Your task to perform on an android device: Go to Android settings Image 0: 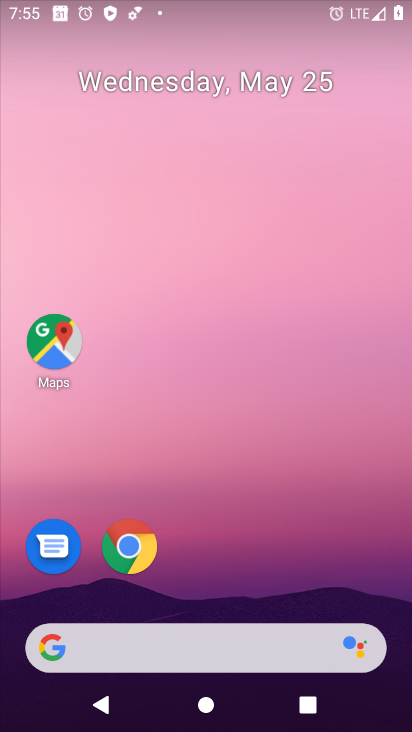
Step 0: drag from (380, 595) to (379, 266)
Your task to perform on an android device: Go to Android settings Image 1: 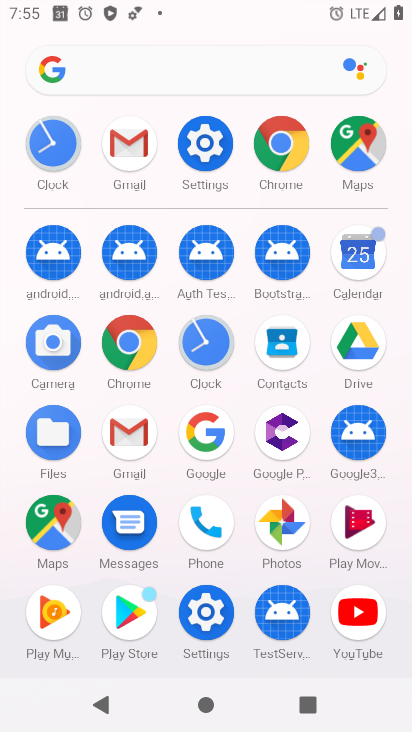
Step 1: click (207, 613)
Your task to perform on an android device: Go to Android settings Image 2: 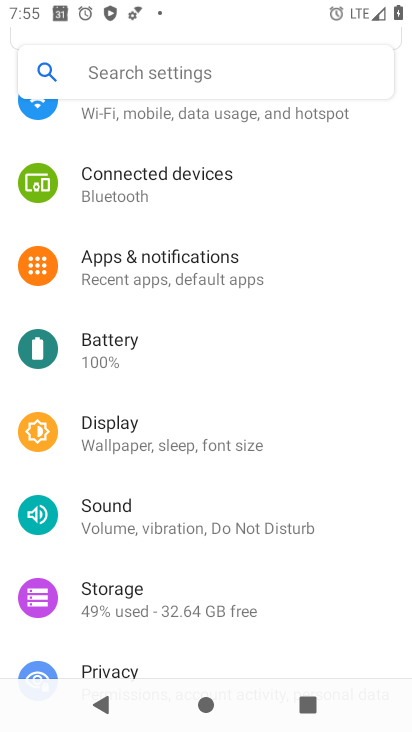
Step 2: drag from (344, 395) to (345, 463)
Your task to perform on an android device: Go to Android settings Image 3: 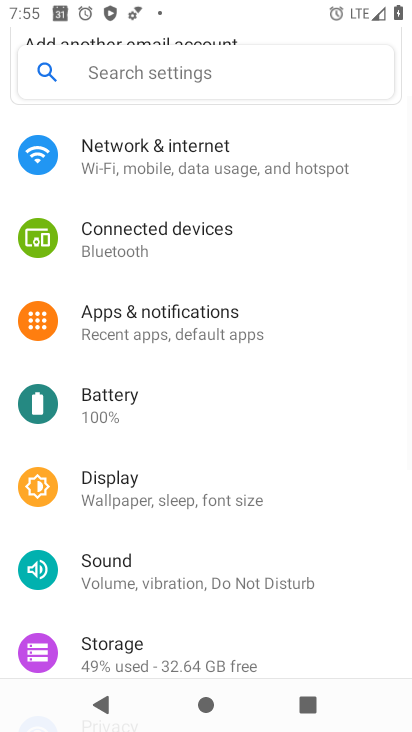
Step 3: drag from (352, 370) to (353, 442)
Your task to perform on an android device: Go to Android settings Image 4: 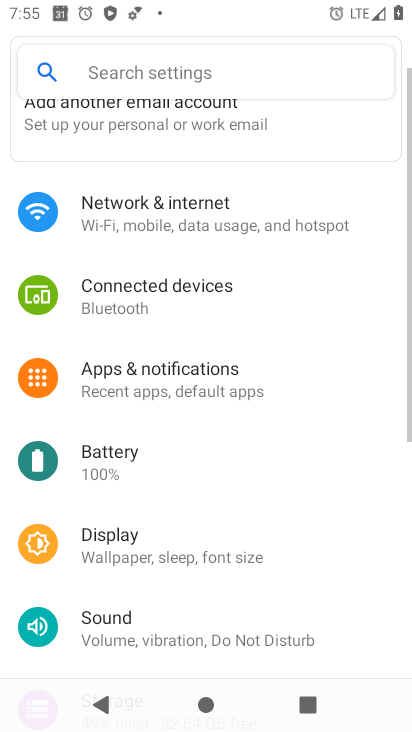
Step 4: drag from (368, 354) to (366, 430)
Your task to perform on an android device: Go to Android settings Image 5: 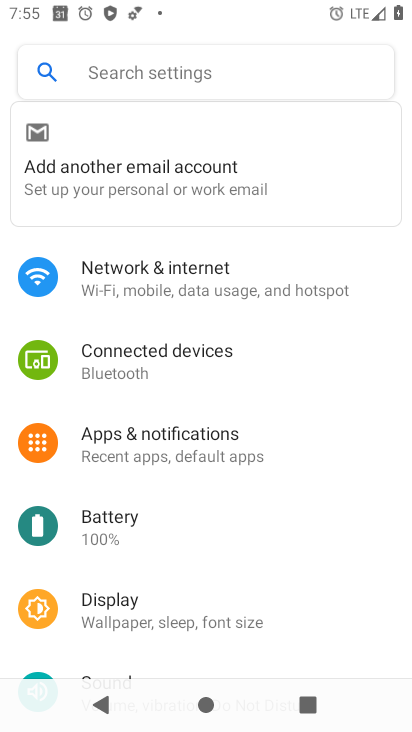
Step 5: drag from (378, 351) to (367, 458)
Your task to perform on an android device: Go to Android settings Image 6: 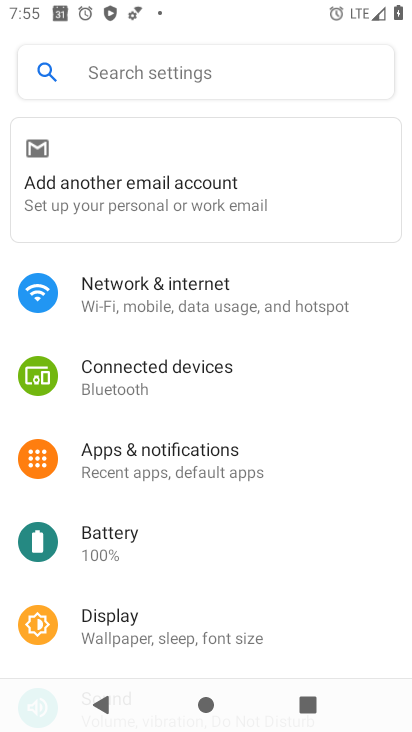
Step 6: drag from (367, 555) to (372, 485)
Your task to perform on an android device: Go to Android settings Image 7: 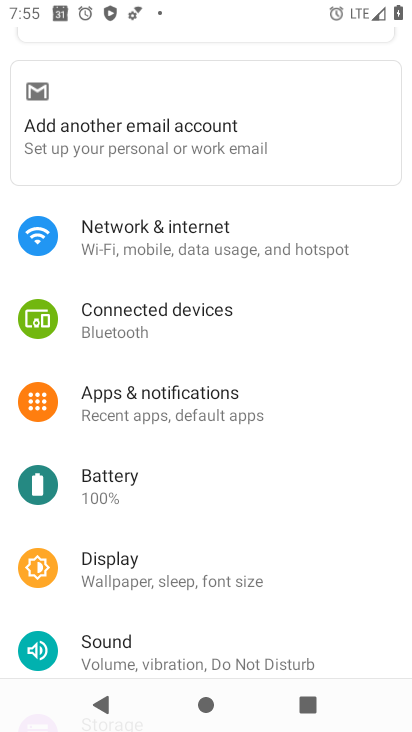
Step 7: drag from (368, 553) to (371, 484)
Your task to perform on an android device: Go to Android settings Image 8: 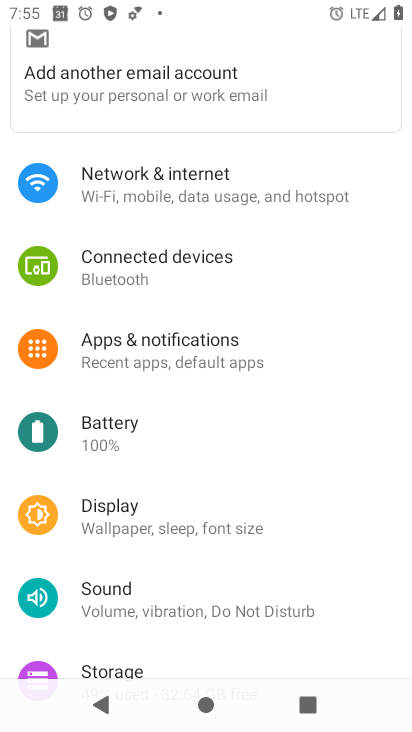
Step 8: drag from (365, 564) to (371, 499)
Your task to perform on an android device: Go to Android settings Image 9: 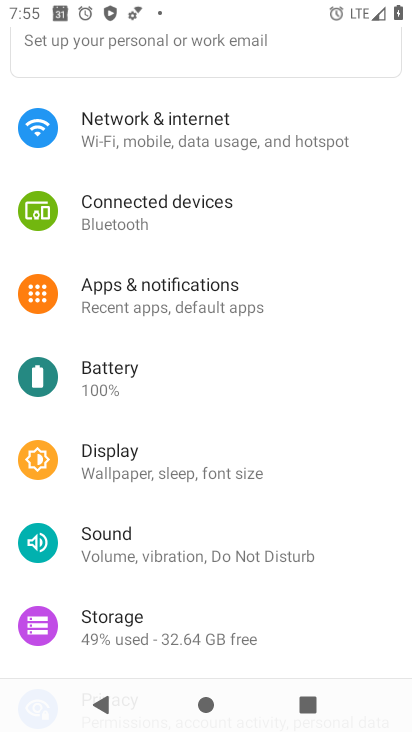
Step 9: drag from (369, 547) to (369, 464)
Your task to perform on an android device: Go to Android settings Image 10: 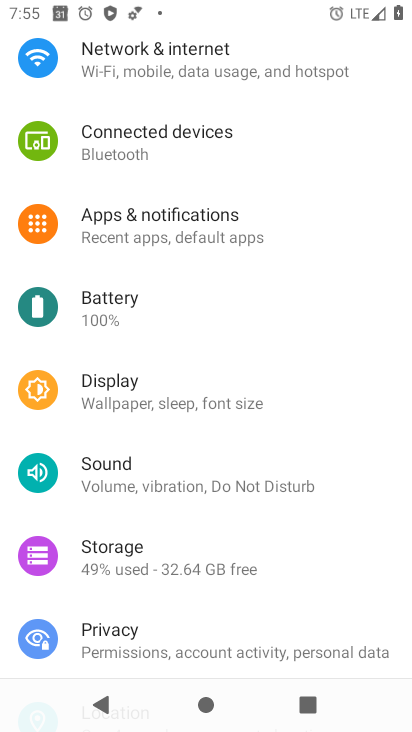
Step 10: drag from (363, 546) to (369, 481)
Your task to perform on an android device: Go to Android settings Image 11: 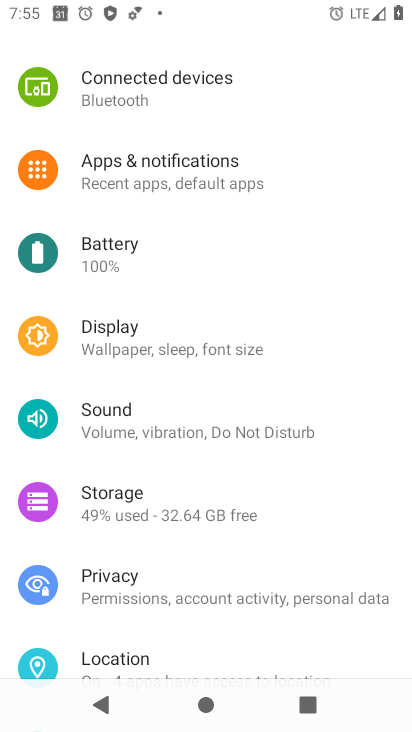
Step 11: drag from (359, 552) to (362, 466)
Your task to perform on an android device: Go to Android settings Image 12: 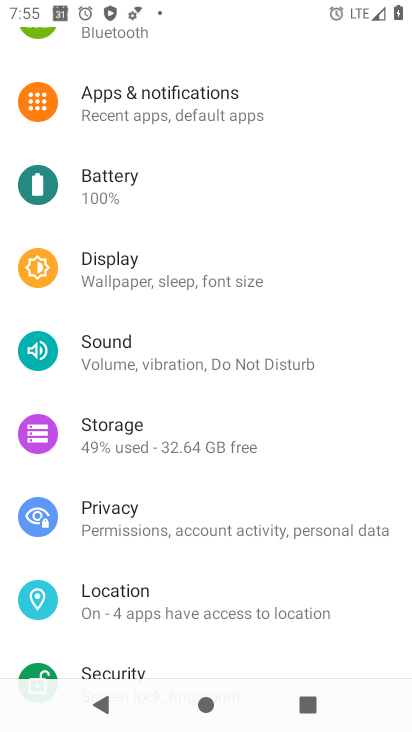
Step 12: drag from (359, 547) to (359, 477)
Your task to perform on an android device: Go to Android settings Image 13: 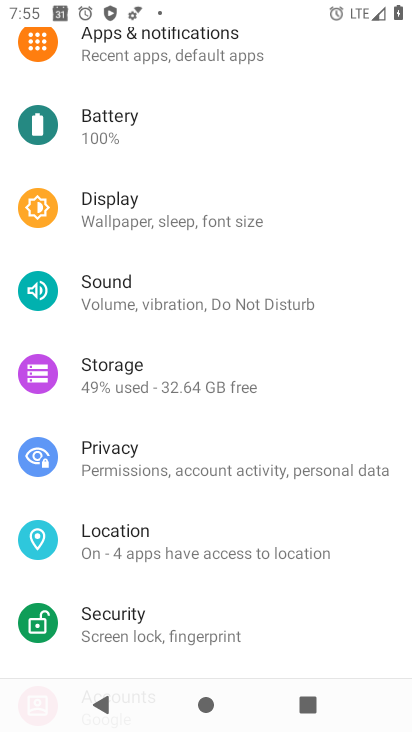
Step 13: drag from (357, 569) to (368, 498)
Your task to perform on an android device: Go to Android settings Image 14: 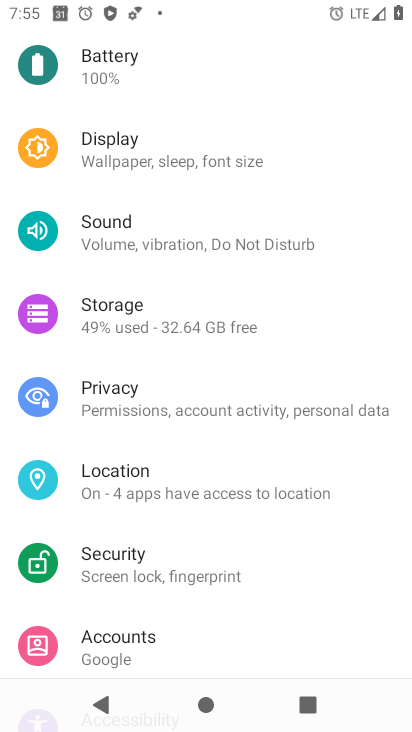
Step 14: drag from (368, 570) to (373, 500)
Your task to perform on an android device: Go to Android settings Image 15: 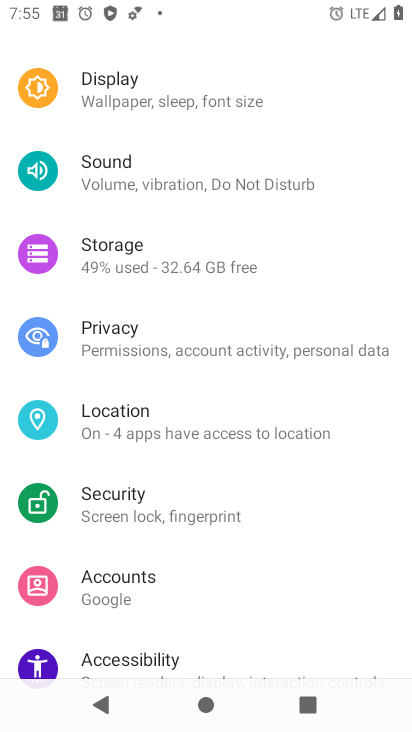
Step 15: drag from (358, 567) to (359, 478)
Your task to perform on an android device: Go to Android settings Image 16: 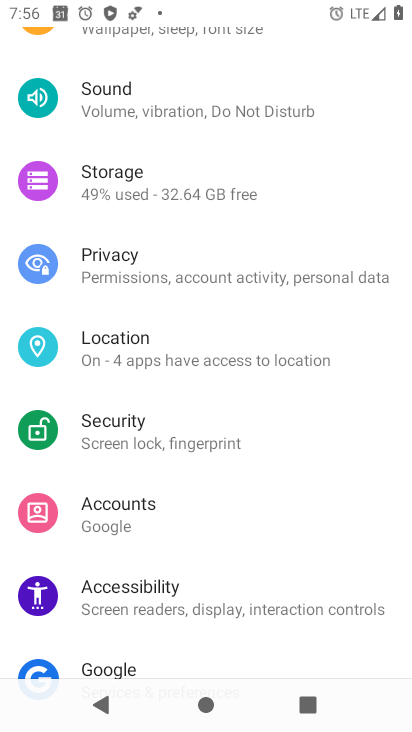
Step 16: drag from (359, 539) to (369, 464)
Your task to perform on an android device: Go to Android settings Image 17: 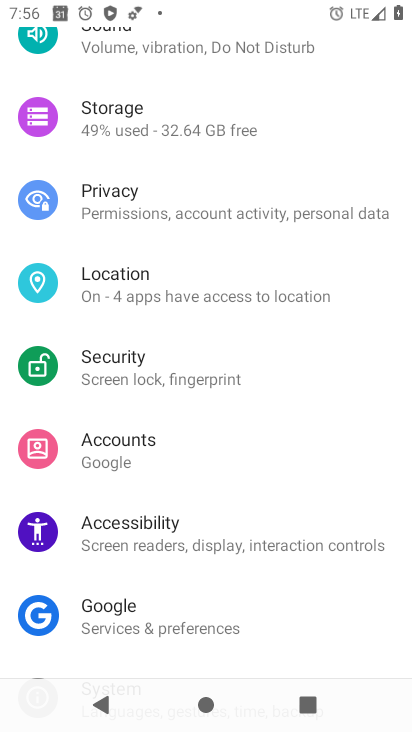
Step 17: drag from (372, 534) to (375, 452)
Your task to perform on an android device: Go to Android settings Image 18: 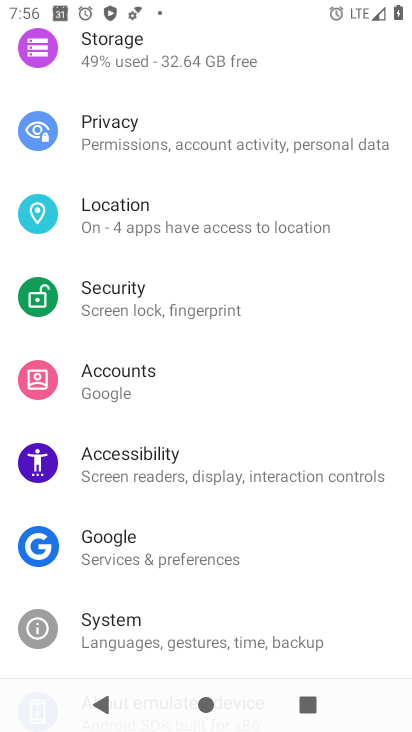
Step 18: drag from (361, 543) to (367, 414)
Your task to perform on an android device: Go to Android settings Image 19: 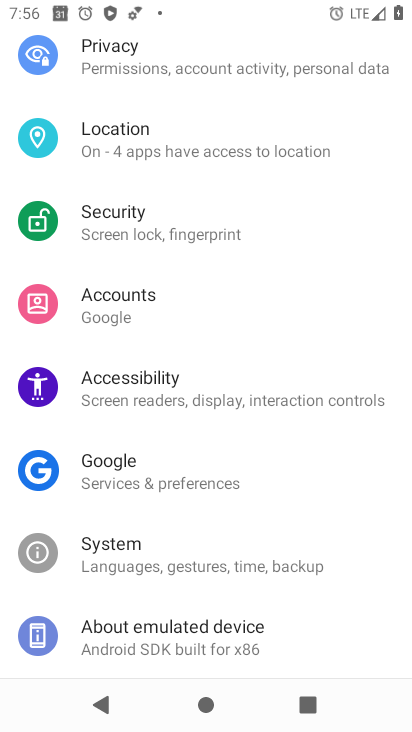
Step 19: click (334, 564)
Your task to perform on an android device: Go to Android settings Image 20: 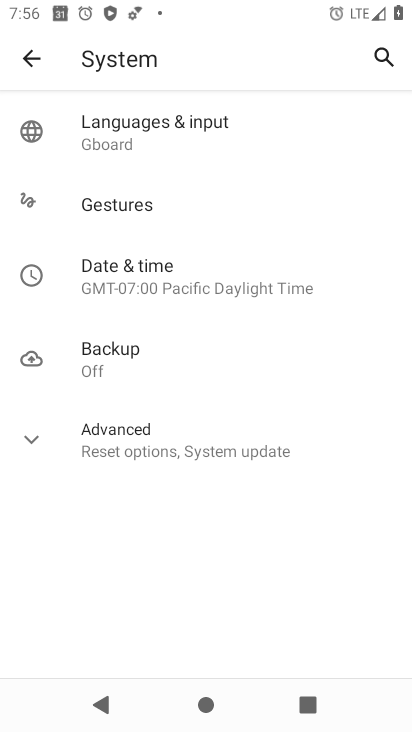
Step 20: click (264, 456)
Your task to perform on an android device: Go to Android settings Image 21: 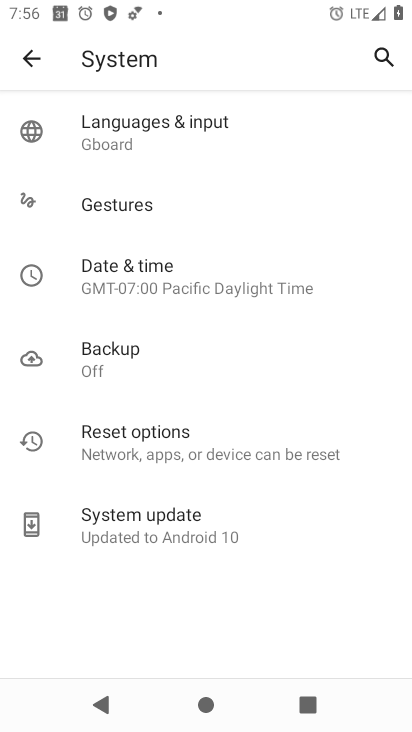
Step 21: task complete